Your task to perform on an android device: check google app version Image 0: 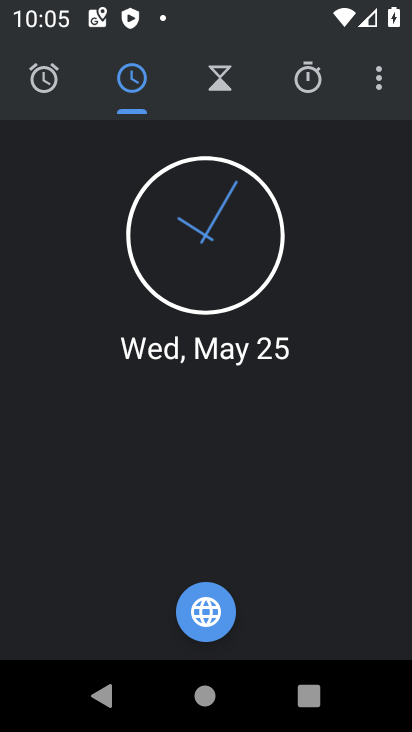
Step 0: press home button
Your task to perform on an android device: check google app version Image 1: 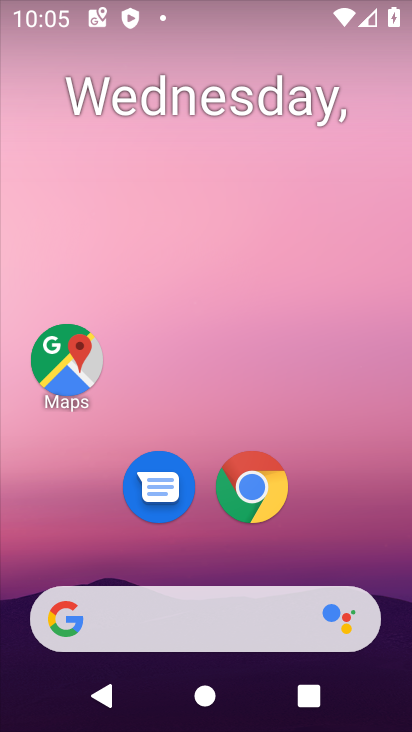
Step 1: drag from (130, 538) to (104, 257)
Your task to perform on an android device: check google app version Image 2: 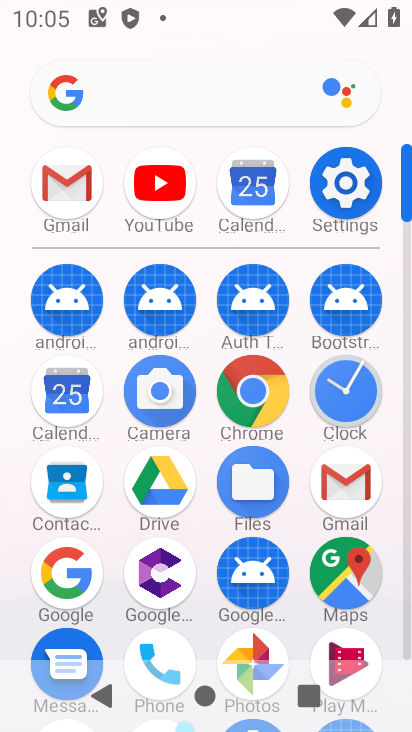
Step 2: click (86, 580)
Your task to perform on an android device: check google app version Image 3: 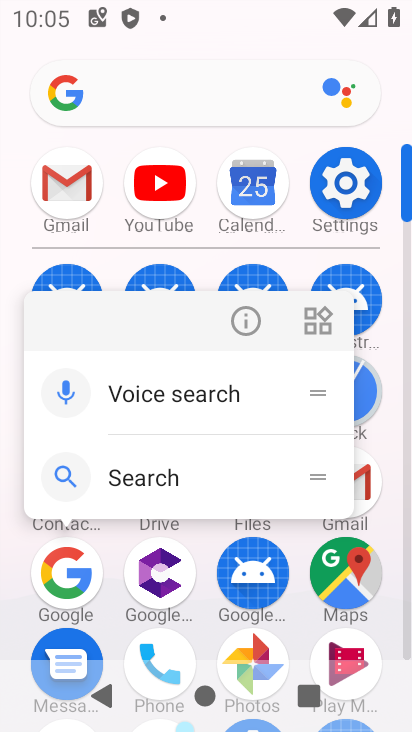
Step 3: click (247, 323)
Your task to perform on an android device: check google app version Image 4: 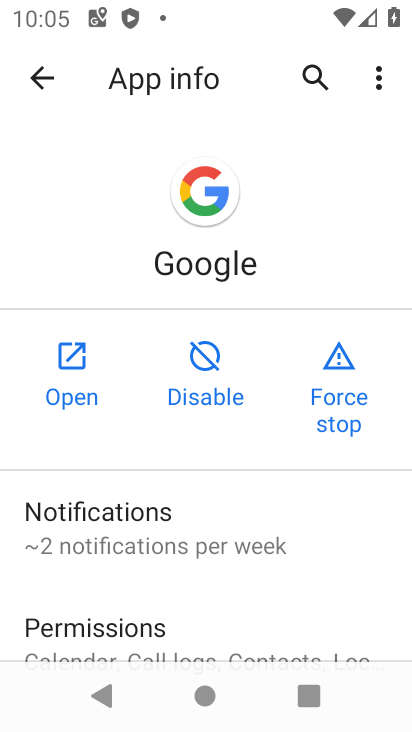
Step 4: drag from (180, 595) to (52, 107)
Your task to perform on an android device: check google app version Image 5: 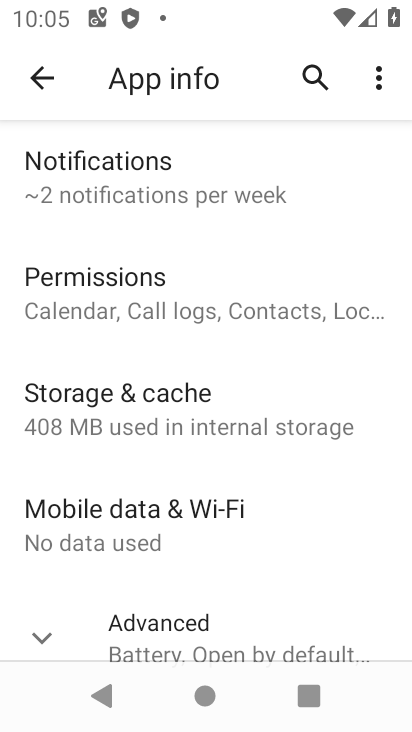
Step 5: drag from (223, 614) to (193, 169)
Your task to perform on an android device: check google app version Image 6: 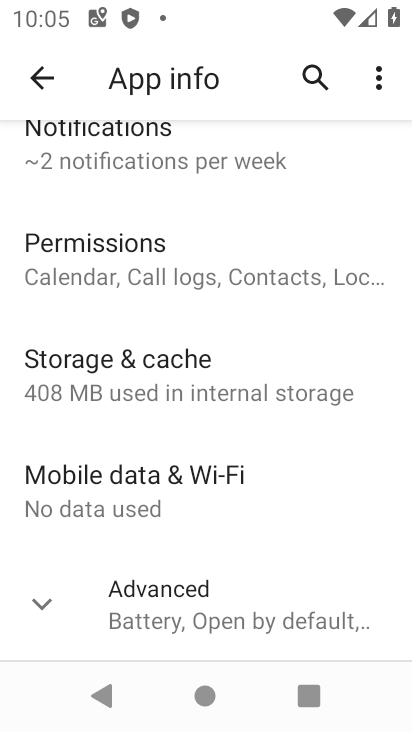
Step 6: click (184, 611)
Your task to perform on an android device: check google app version Image 7: 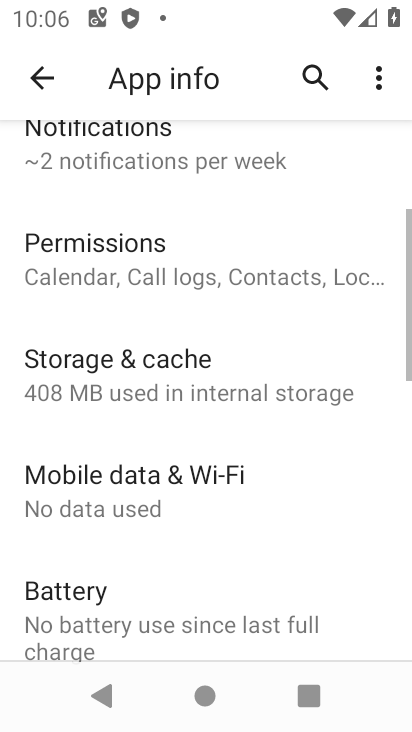
Step 7: task complete